Your task to perform on an android device: turn on location history Image 0: 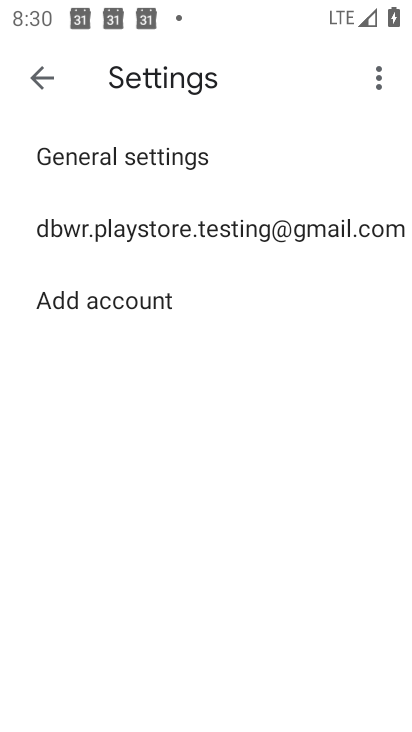
Step 0: press home button
Your task to perform on an android device: turn on location history Image 1: 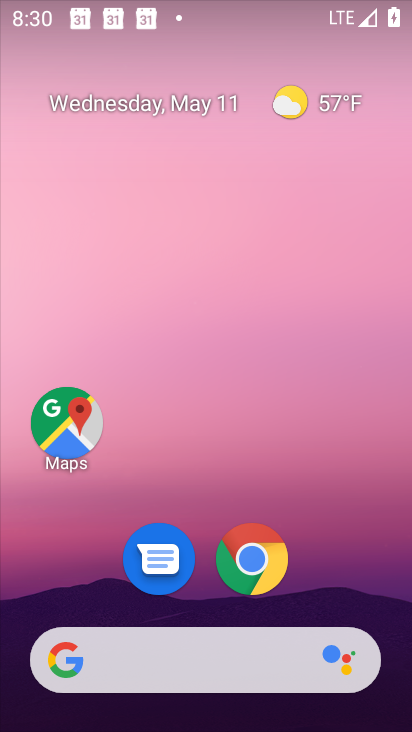
Step 1: drag from (383, 588) to (353, 88)
Your task to perform on an android device: turn on location history Image 2: 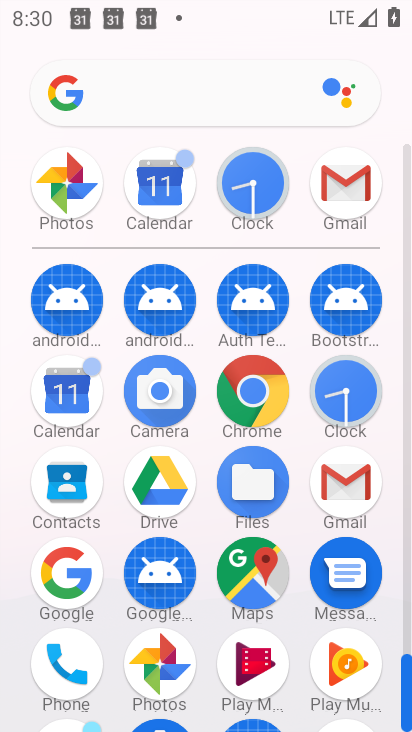
Step 2: click (267, 570)
Your task to perform on an android device: turn on location history Image 3: 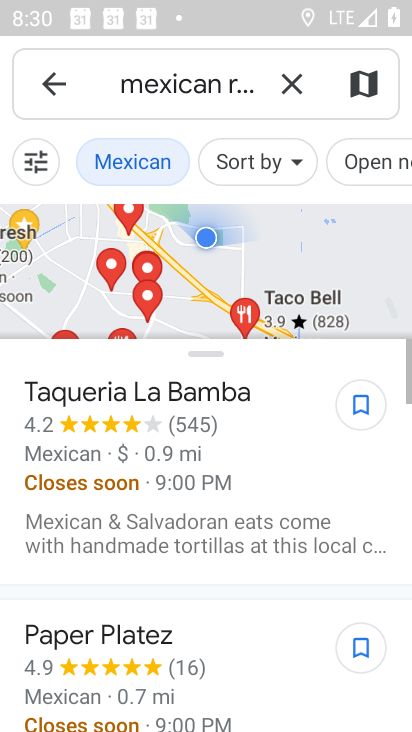
Step 3: click (60, 88)
Your task to perform on an android device: turn on location history Image 4: 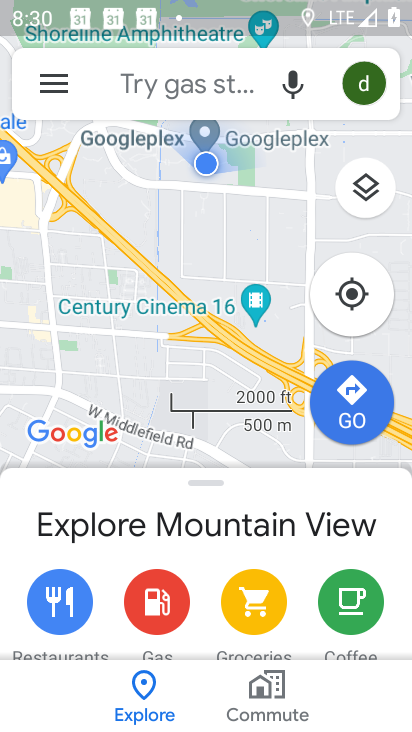
Step 4: click (60, 88)
Your task to perform on an android device: turn on location history Image 5: 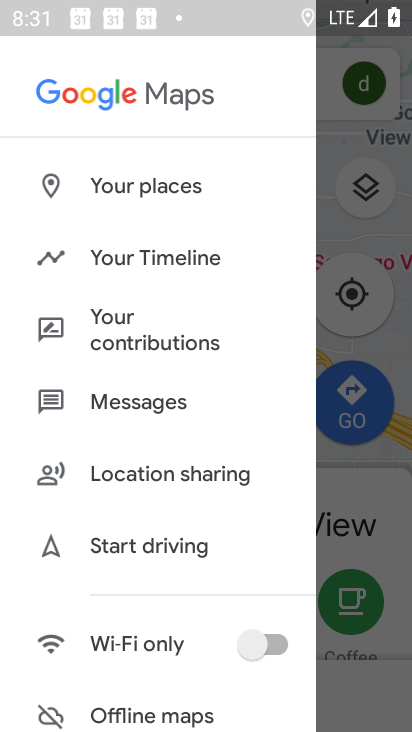
Step 5: drag from (168, 638) to (224, 170)
Your task to perform on an android device: turn on location history Image 6: 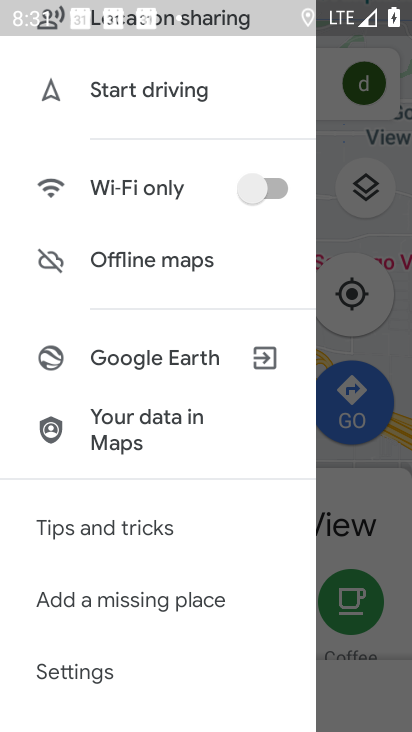
Step 6: drag from (196, 664) to (213, 234)
Your task to perform on an android device: turn on location history Image 7: 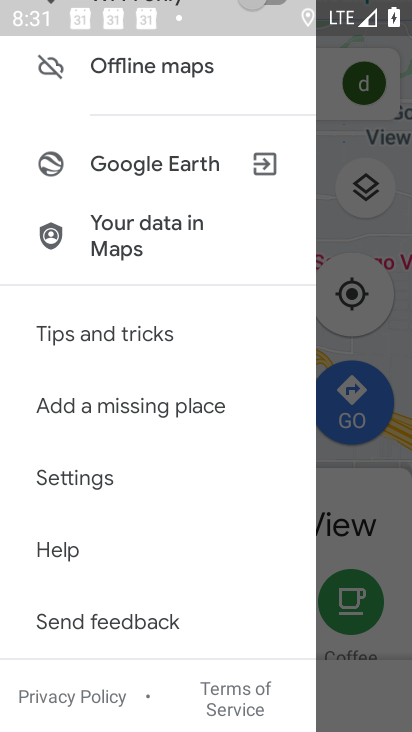
Step 7: drag from (213, 234) to (137, 715)
Your task to perform on an android device: turn on location history Image 8: 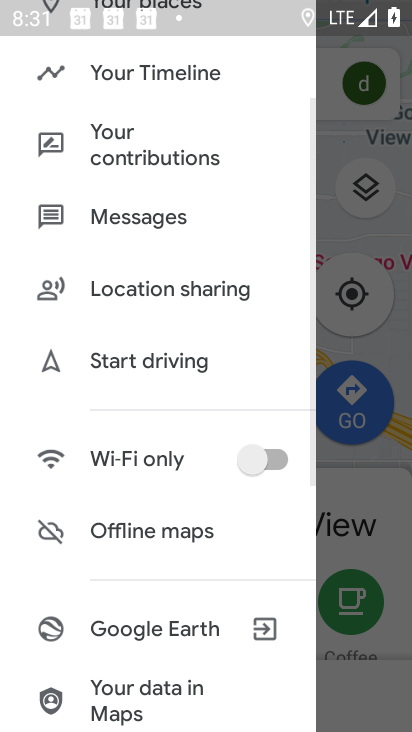
Step 8: drag from (175, 191) to (188, 717)
Your task to perform on an android device: turn on location history Image 9: 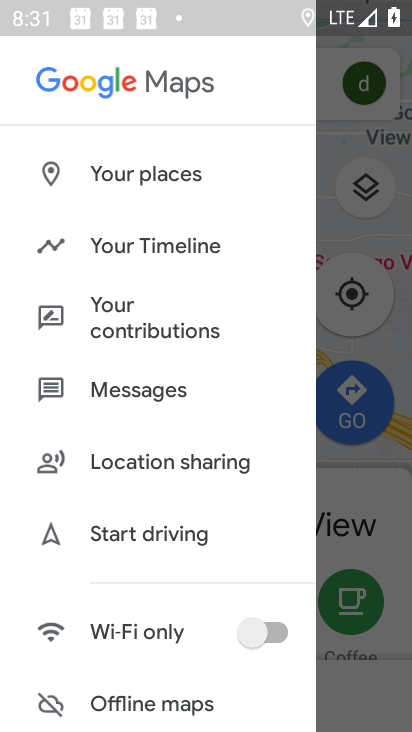
Step 9: click (148, 257)
Your task to perform on an android device: turn on location history Image 10: 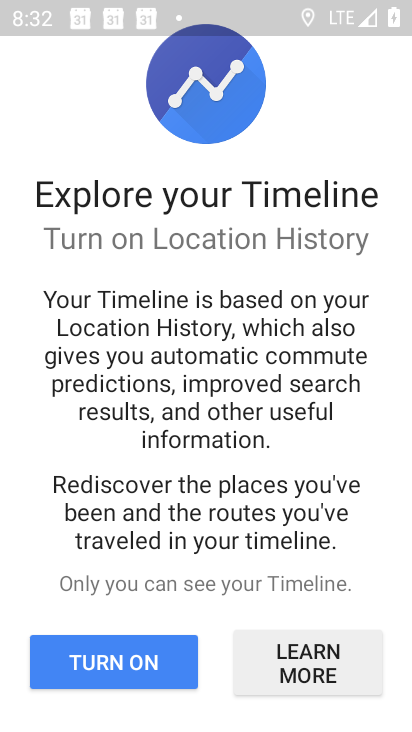
Step 10: click (108, 658)
Your task to perform on an android device: turn on location history Image 11: 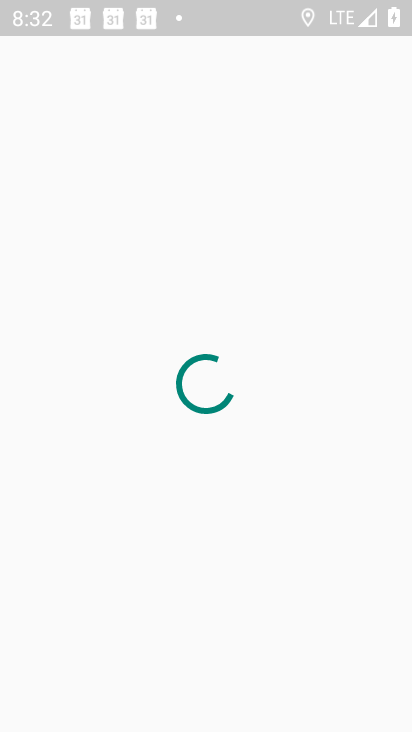
Step 11: task complete